Your task to perform on an android device: toggle improve location accuracy Image 0: 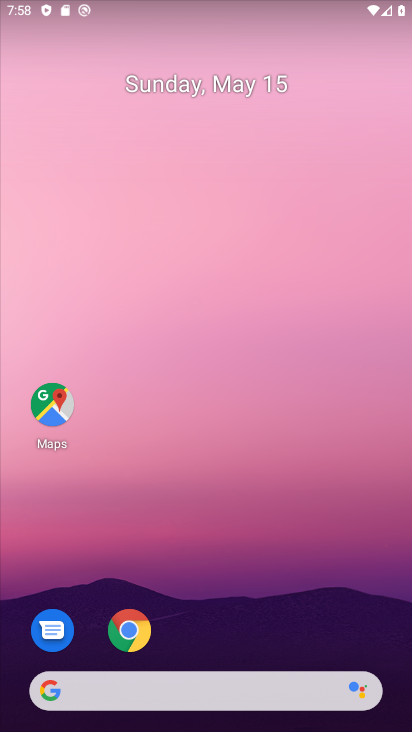
Step 0: drag from (190, 648) to (215, 102)
Your task to perform on an android device: toggle improve location accuracy Image 1: 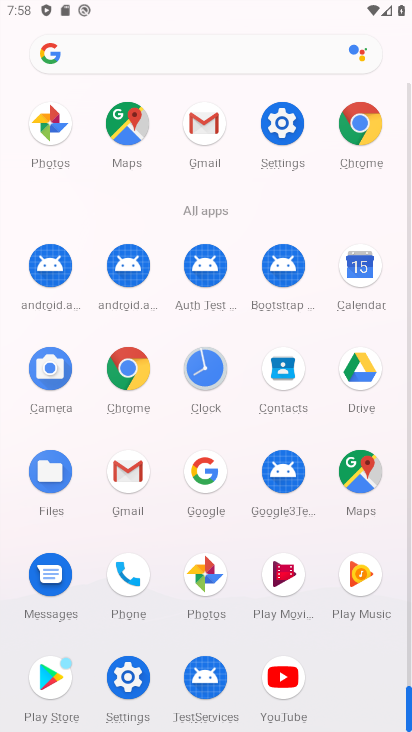
Step 1: click (128, 676)
Your task to perform on an android device: toggle improve location accuracy Image 2: 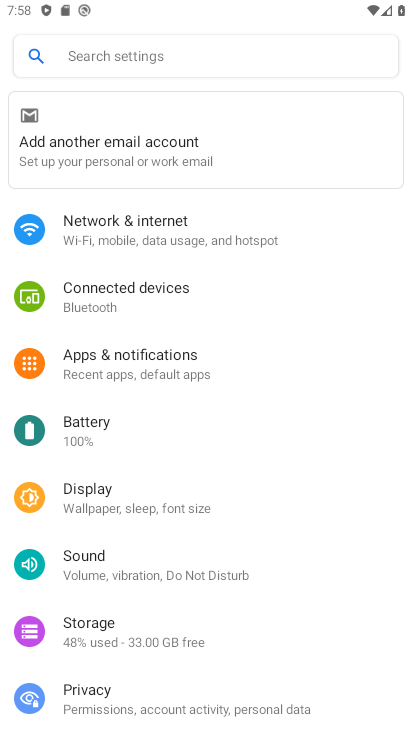
Step 2: drag from (151, 615) to (196, 324)
Your task to perform on an android device: toggle improve location accuracy Image 3: 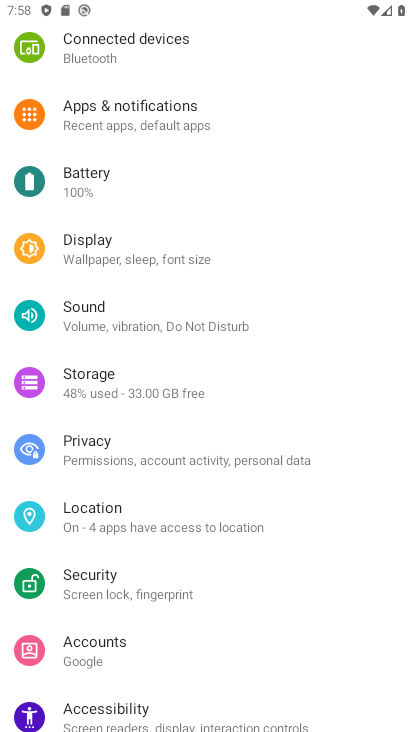
Step 3: click (125, 519)
Your task to perform on an android device: toggle improve location accuracy Image 4: 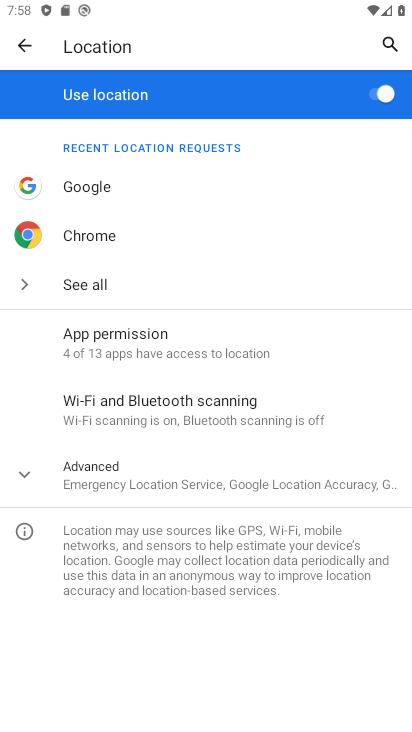
Step 4: click (84, 476)
Your task to perform on an android device: toggle improve location accuracy Image 5: 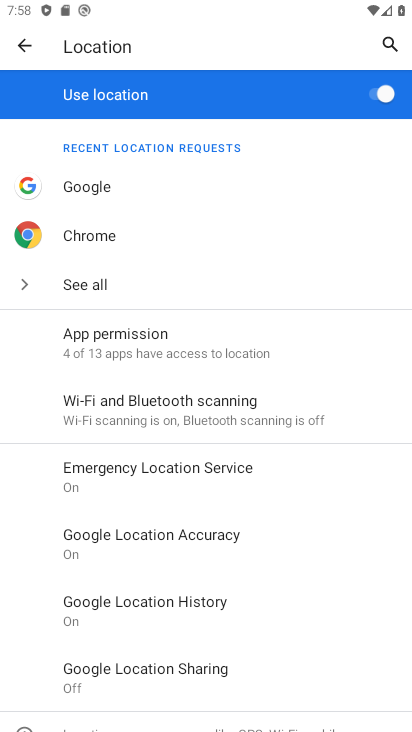
Step 5: click (196, 540)
Your task to perform on an android device: toggle improve location accuracy Image 6: 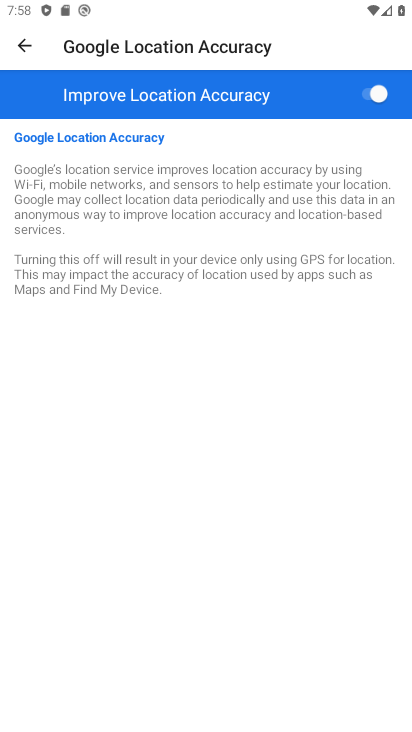
Step 6: click (353, 103)
Your task to perform on an android device: toggle improve location accuracy Image 7: 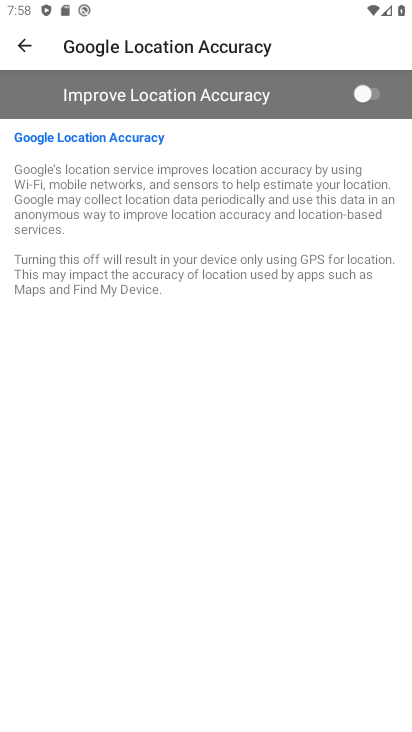
Step 7: task complete